Your task to perform on an android device: turn pop-ups off in chrome Image 0: 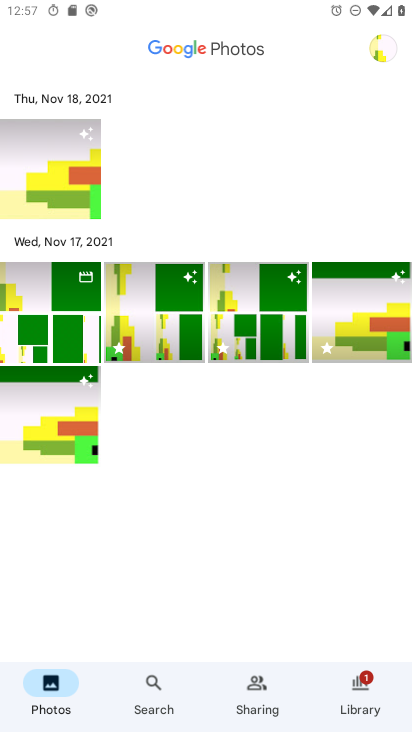
Step 0: press home button
Your task to perform on an android device: turn pop-ups off in chrome Image 1: 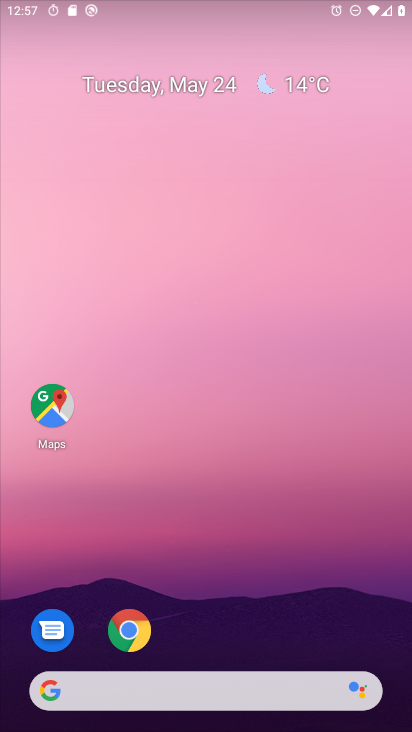
Step 1: drag from (317, 583) to (320, 85)
Your task to perform on an android device: turn pop-ups off in chrome Image 2: 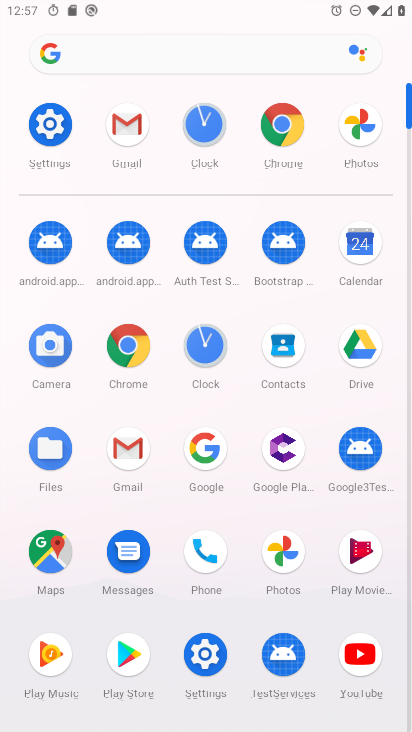
Step 2: click (151, 341)
Your task to perform on an android device: turn pop-ups off in chrome Image 3: 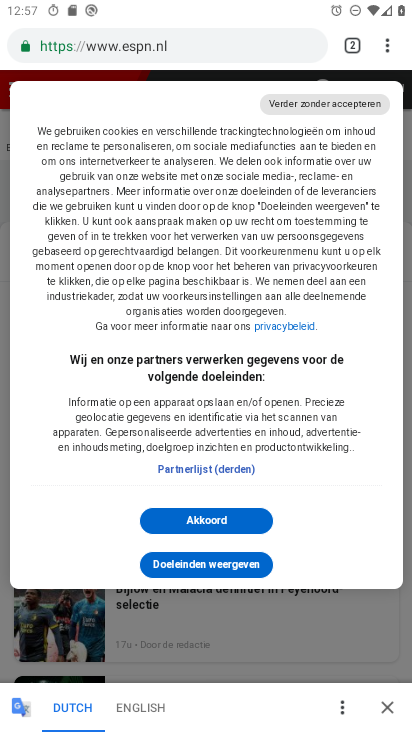
Step 3: drag from (388, 50) to (263, 547)
Your task to perform on an android device: turn pop-ups off in chrome Image 4: 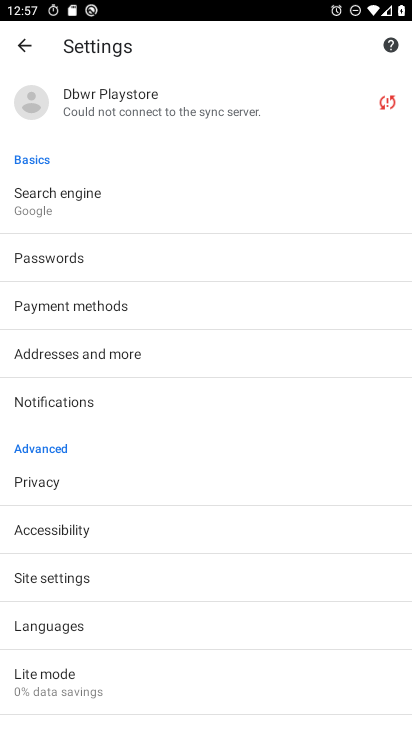
Step 4: drag from (260, 652) to (301, 299)
Your task to perform on an android device: turn pop-ups off in chrome Image 5: 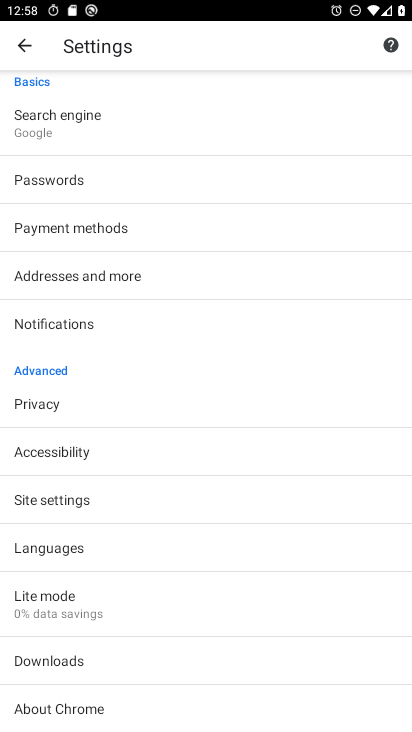
Step 5: click (90, 501)
Your task to perform on an android device: turn pop-ups off in chrome Image 6: 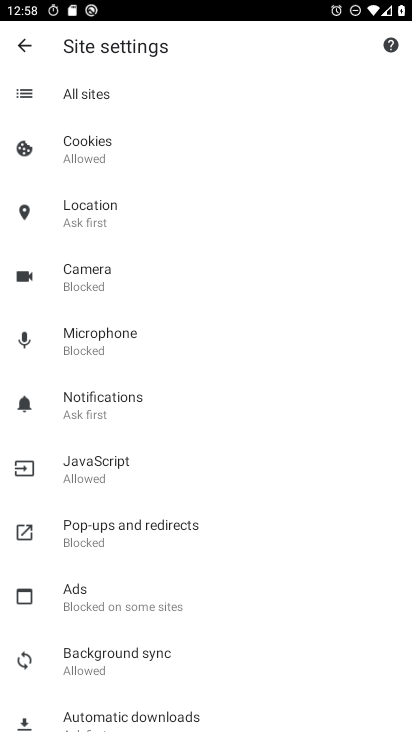
Step 6: click (213, 519)
Your task to perform on an android device: turn pop-ups off in chrome Image 7: 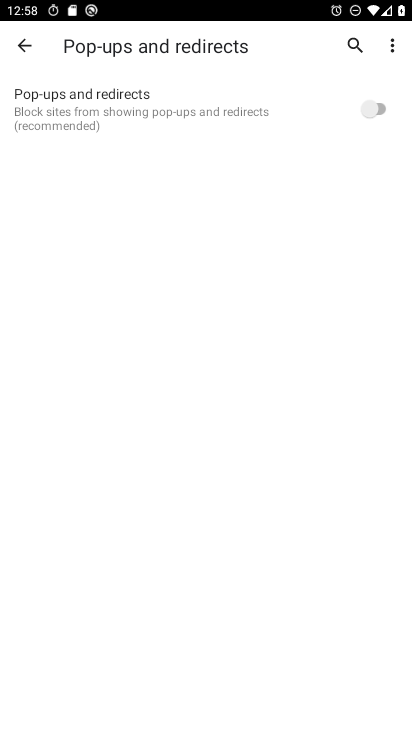
Step 7: task complete